Your task to perform on an android device: open app "Facebook Messenger" Image 0: 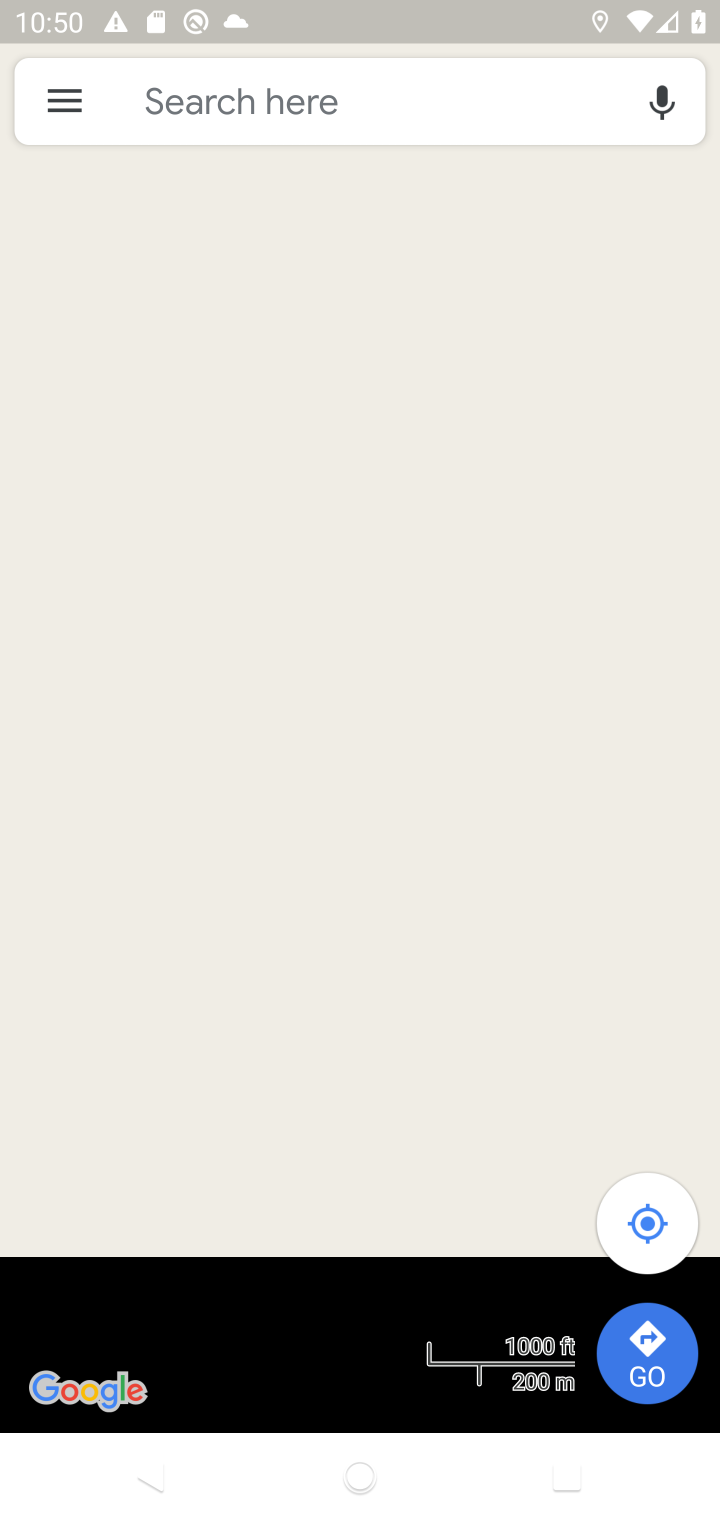
Step 0: press home button
Your task to perform on an android device: open app "Facebook Messenger" Image 1: 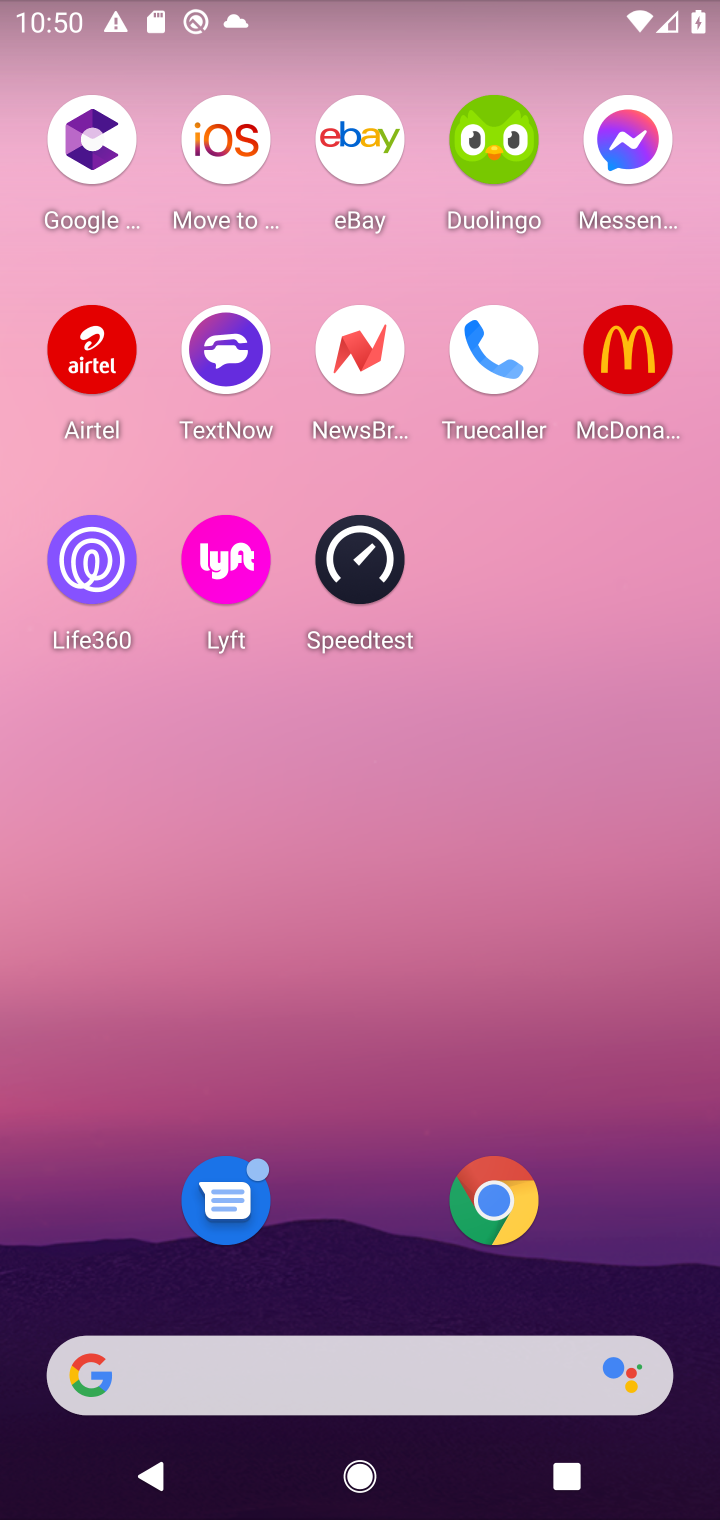
Step 1: press home button
Your task to perform on an android device: open app "Facebook Messenger" Image 2: 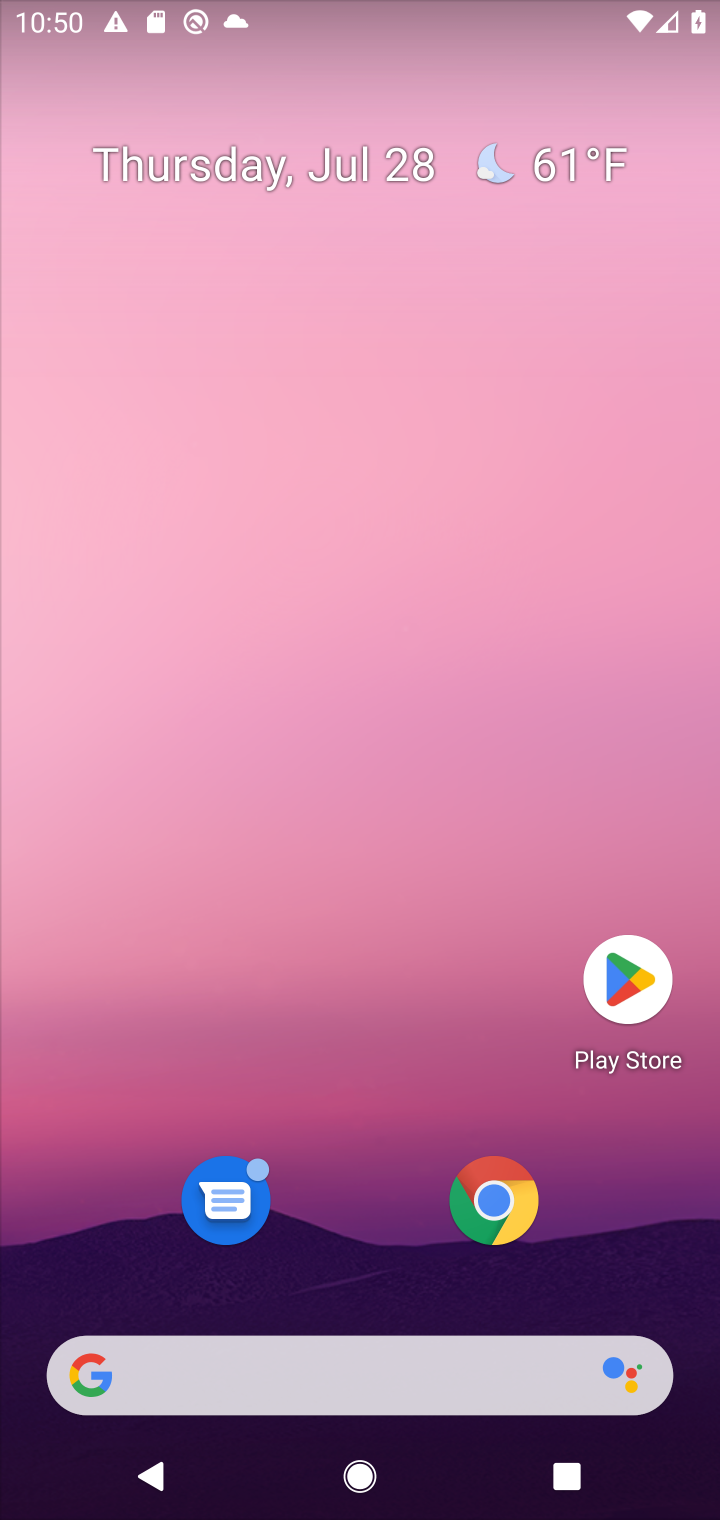
Step 2: click (634, 972)
Your task to perform on an android device: open app "Facebook Messenger" Image 3: 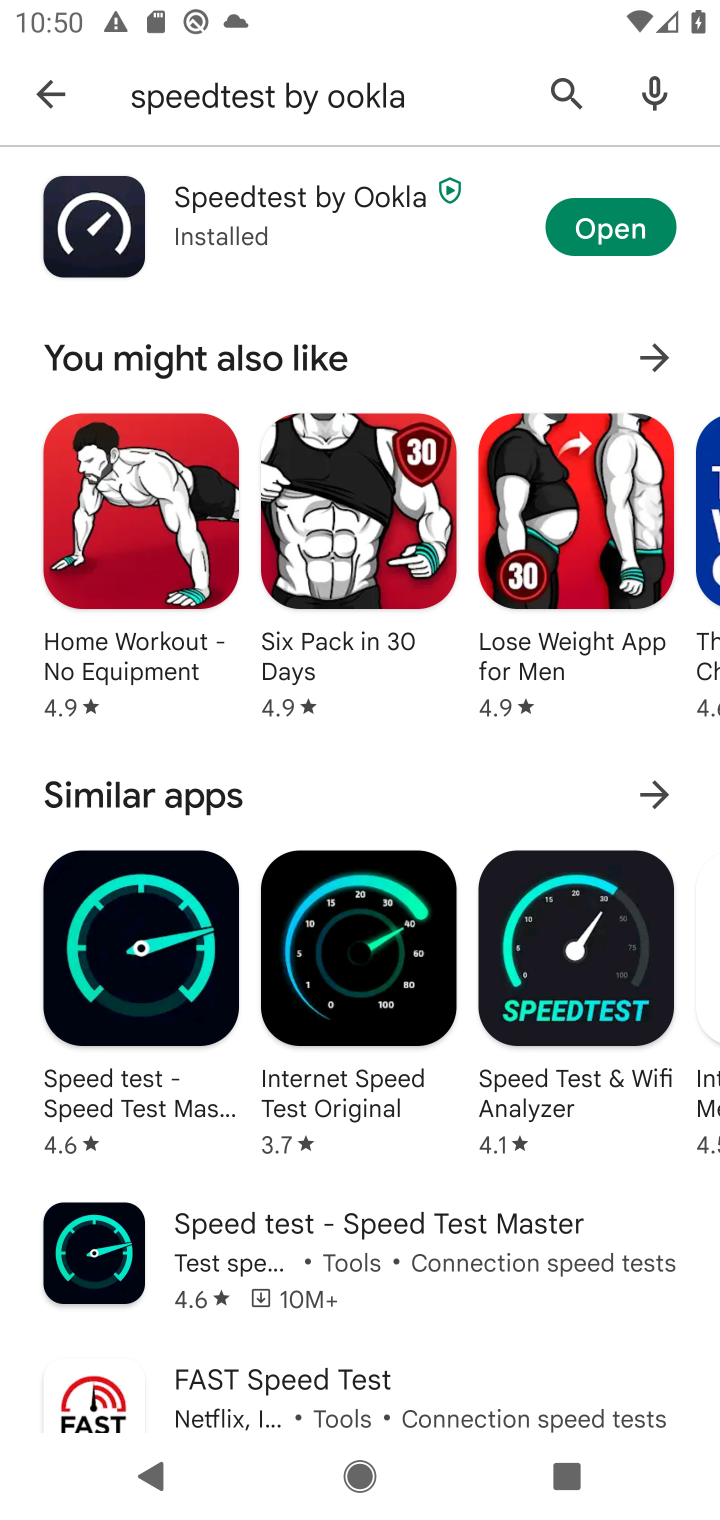
Step 3: click (556, 93)
Your task to perform on an android device: open app "Facebook Messenger" Image 4: 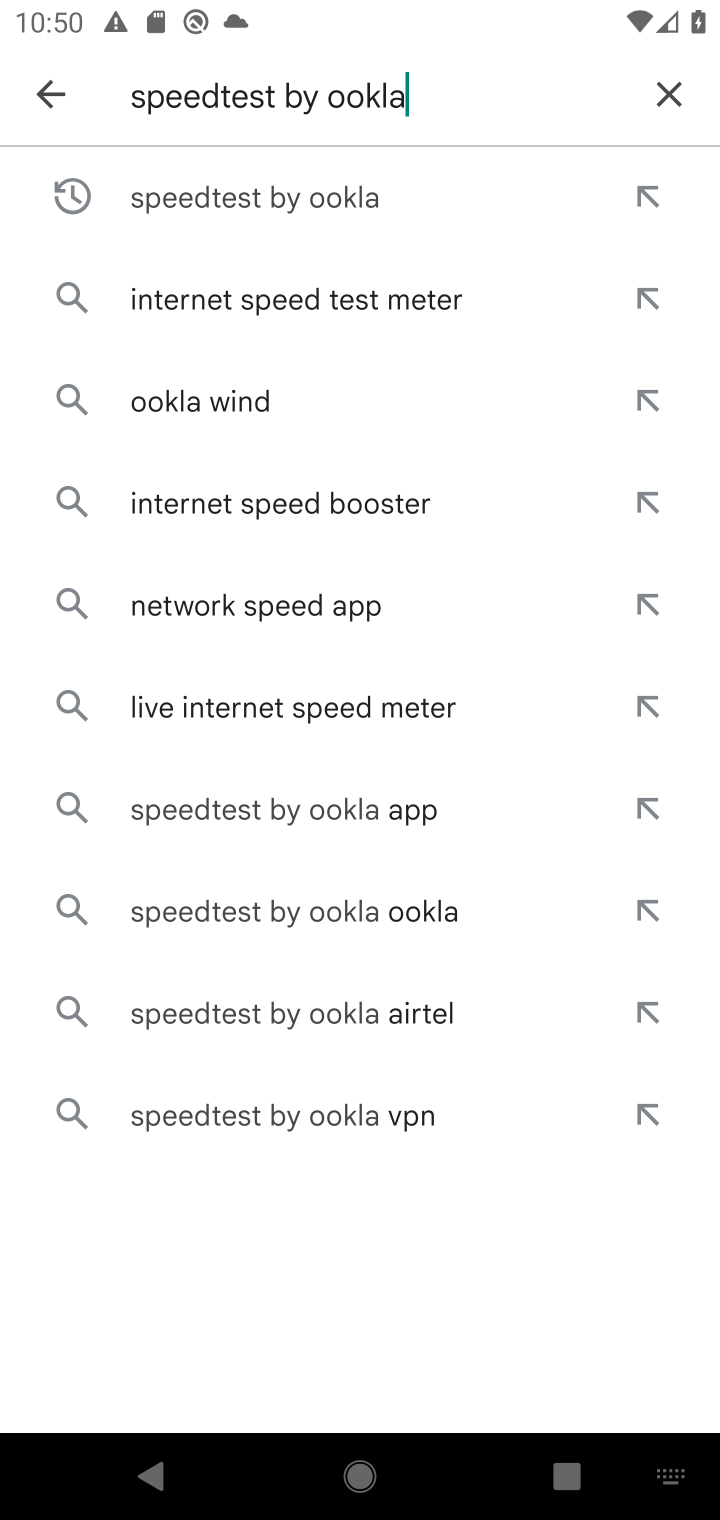
Step 4: click (663, 78)
Your task to perform on an android device: open app "Facebook Messenger" Image 5: 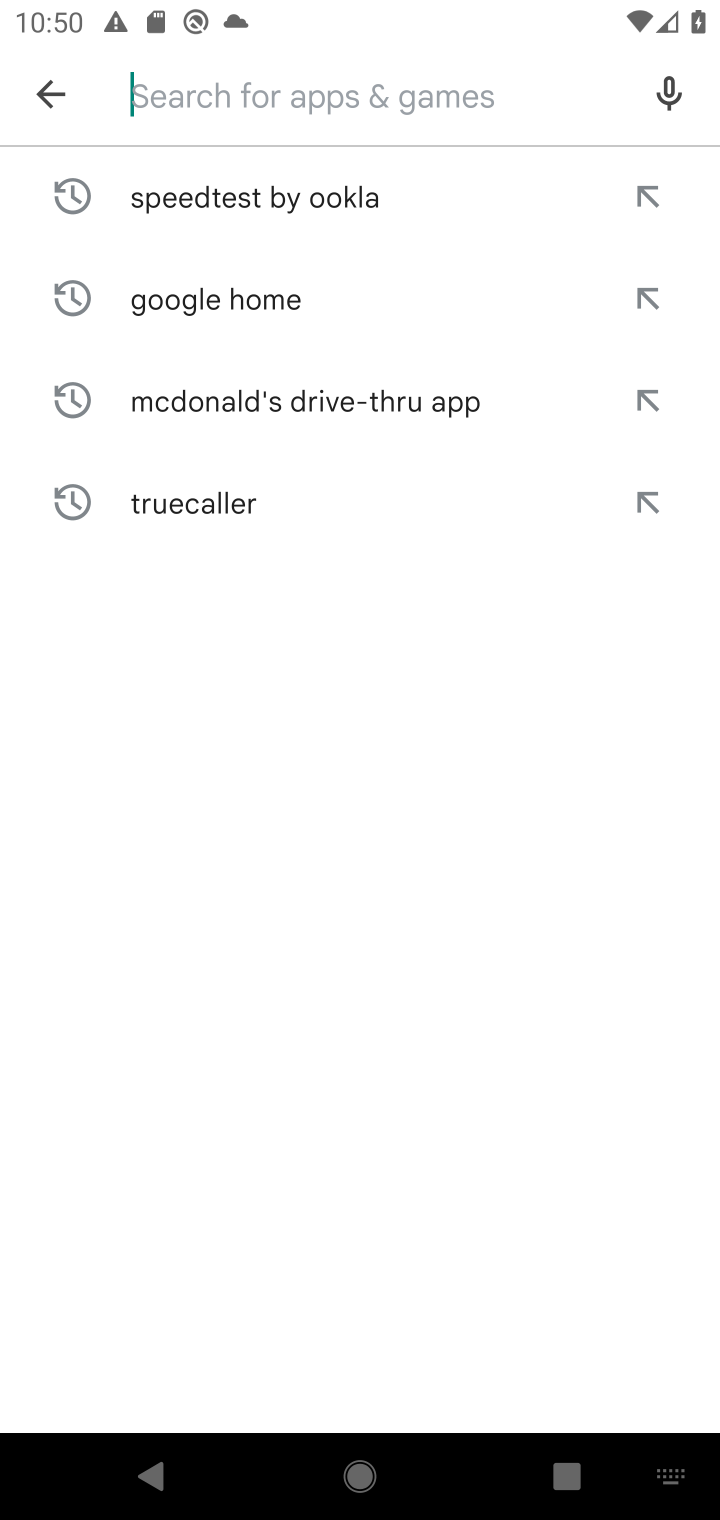
Step 5: type "Facebook Messenger"
Your task to perform on an android device: open app "Facebook Messenger" Image 6: 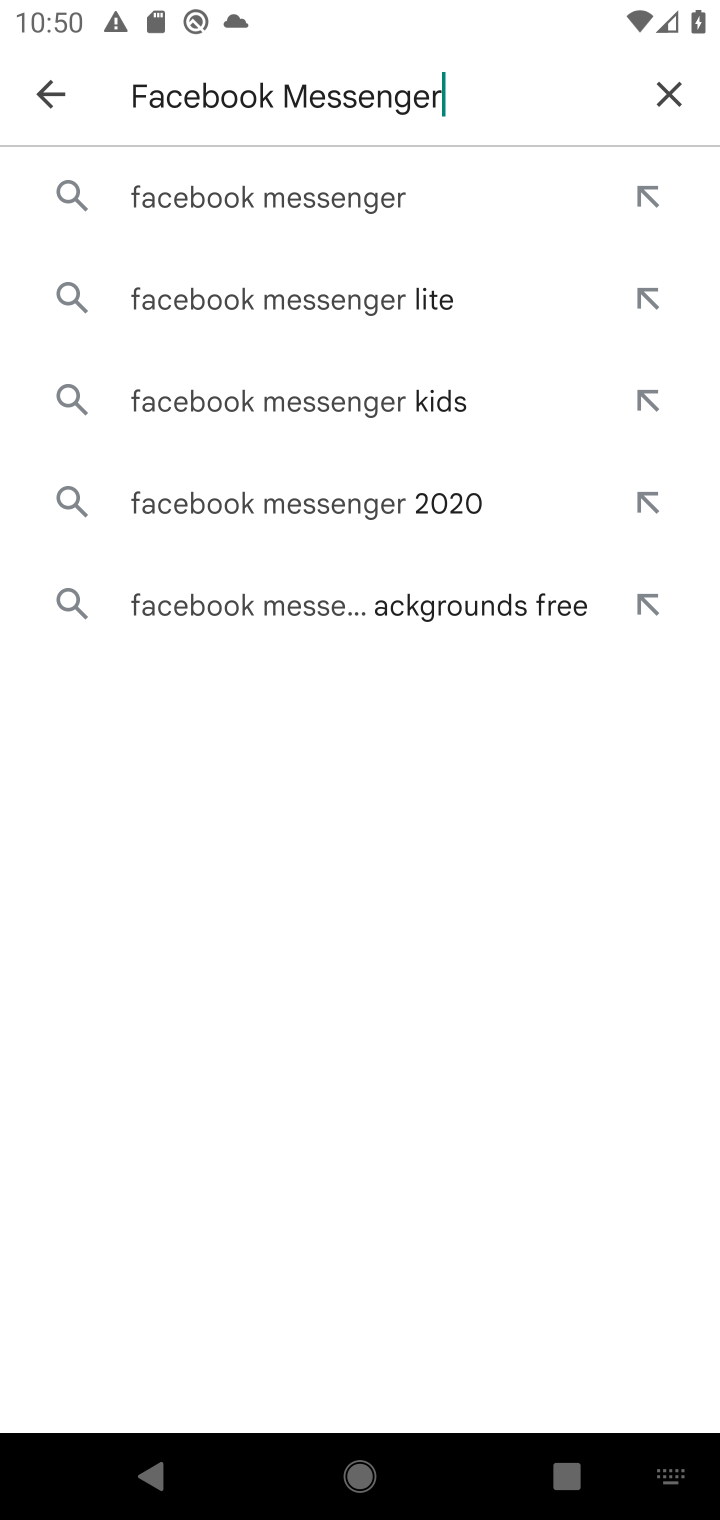
Step 6: click (321, 203)
Your task to perform on an android device: open app "Facebook Messenger" Image 7: 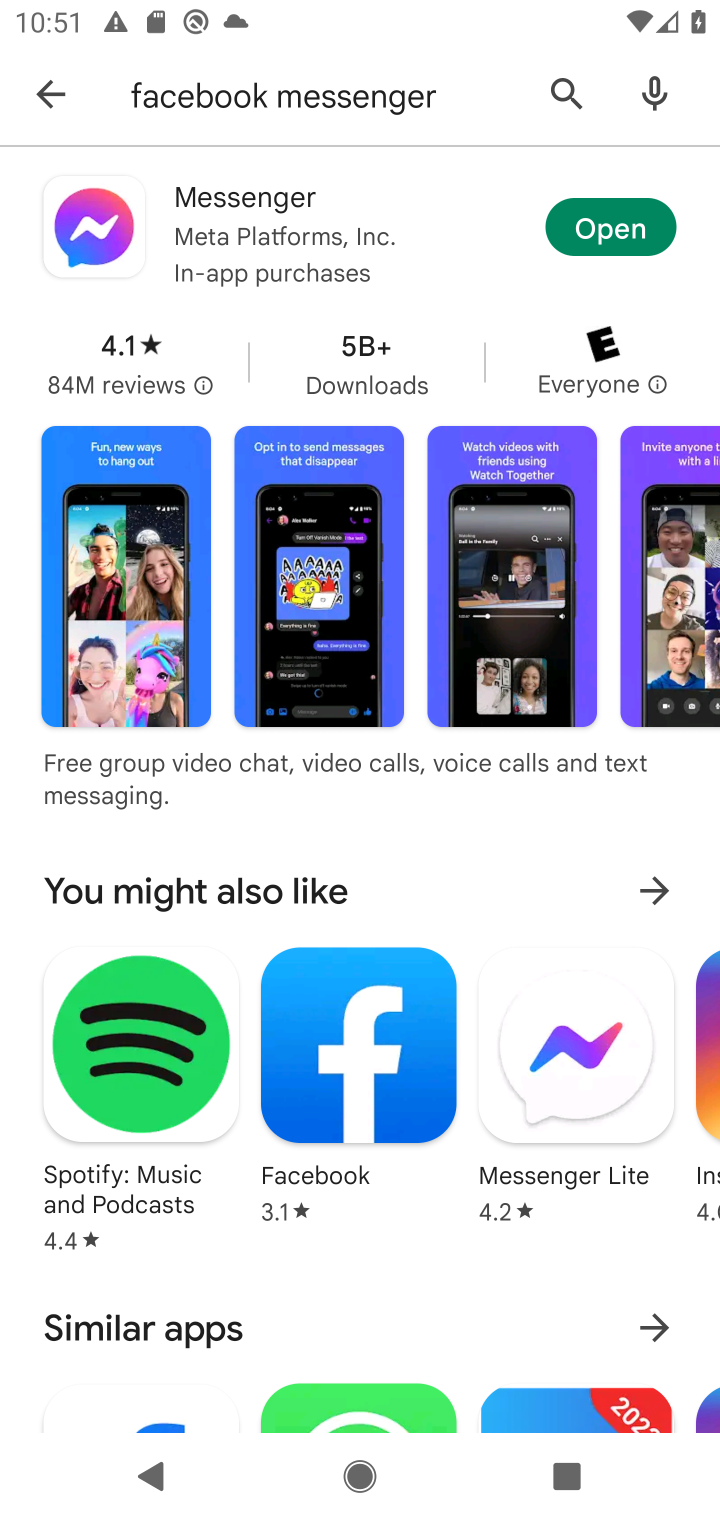
Step 7: click (607, 223)
Your task to perform on an android device: open app "Facebook Messenger" Image 8: 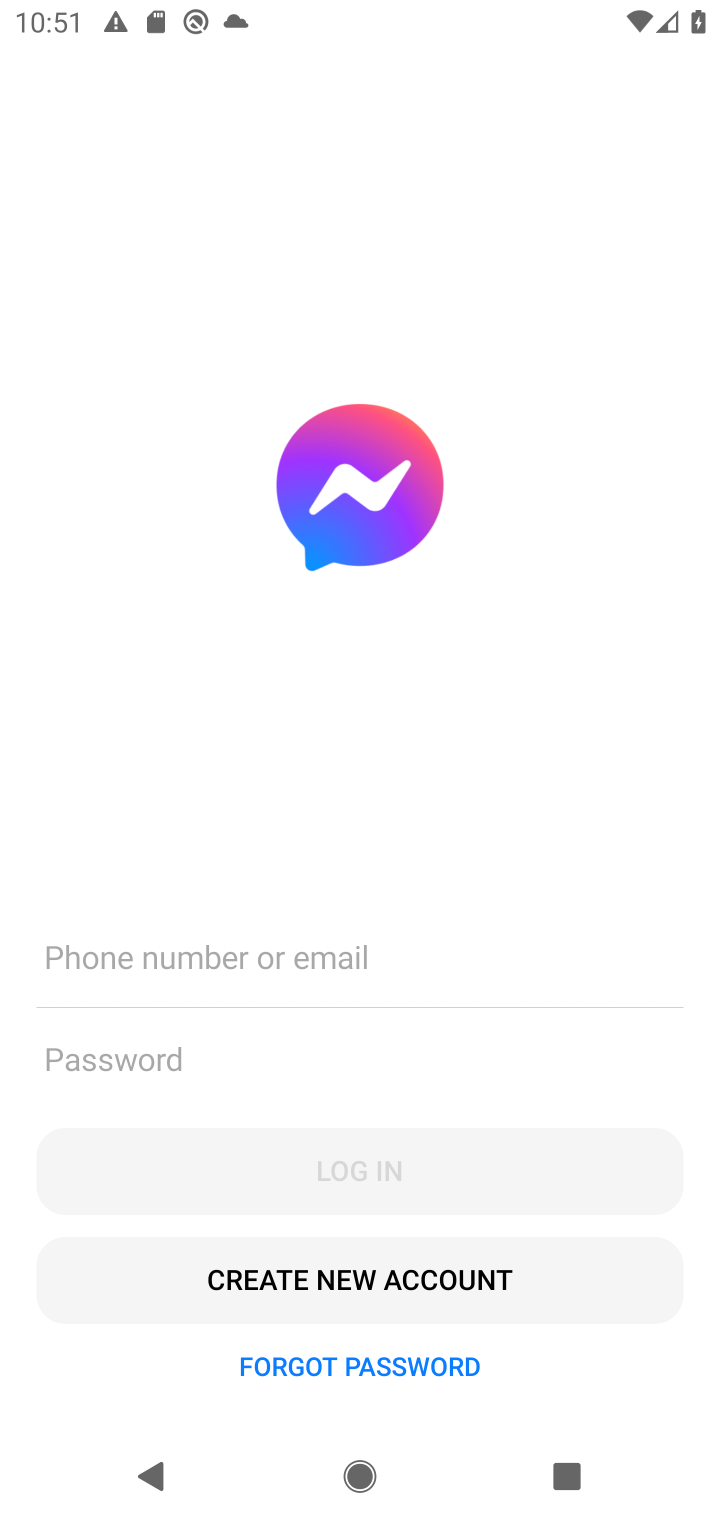
Step 8: task complete